Your task to perform on an android device: Go to Yahoo.com Image 0: 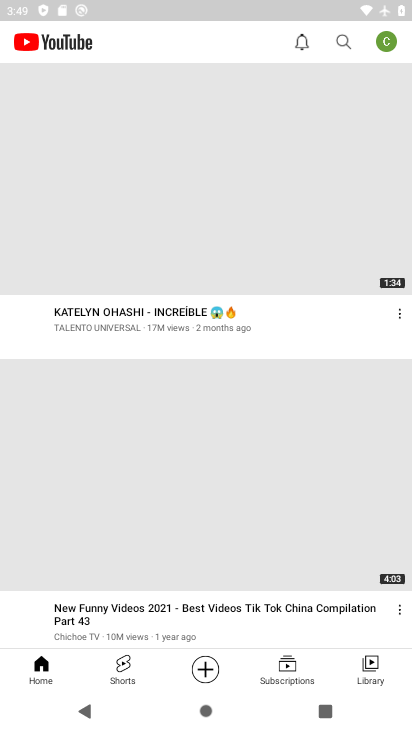
Step 0: press home button
Your task to perform on an android device: Go to Yahoo.com Image 1: 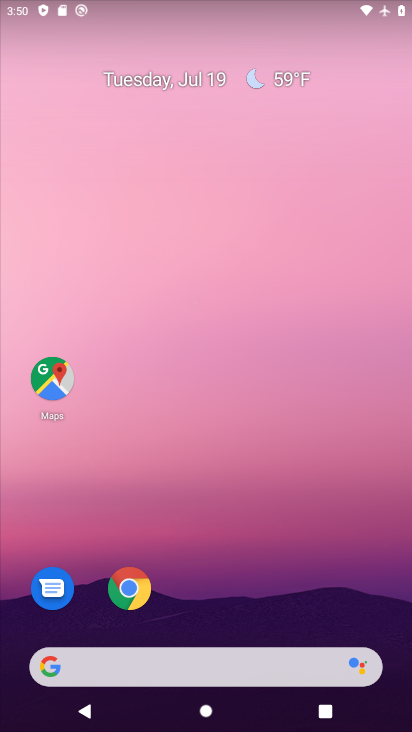
Step 1: click (44, 667)
Your task to perform on an android device: Go to Yahoo.com Image 2: 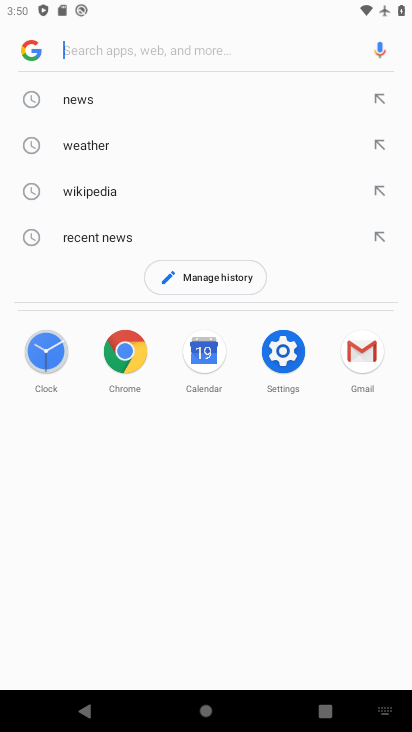
Step 2: type "Yahoo.com"
Your task to perform on an android device: Go to Yahoo.com Image 3: 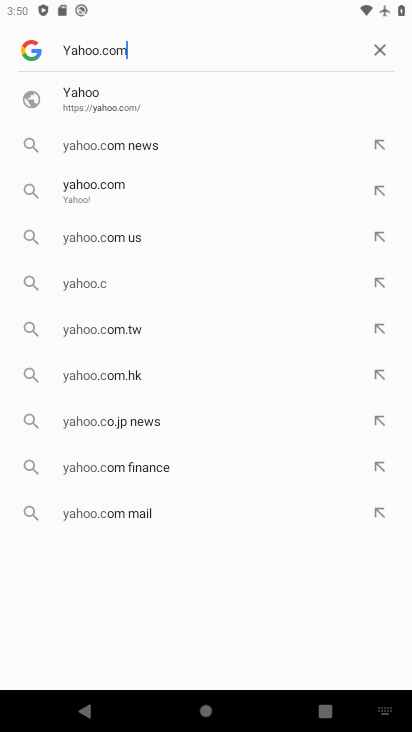
Step 3: press enter
Your task to perform on an android device: Go to Yahoo.com Image 4: 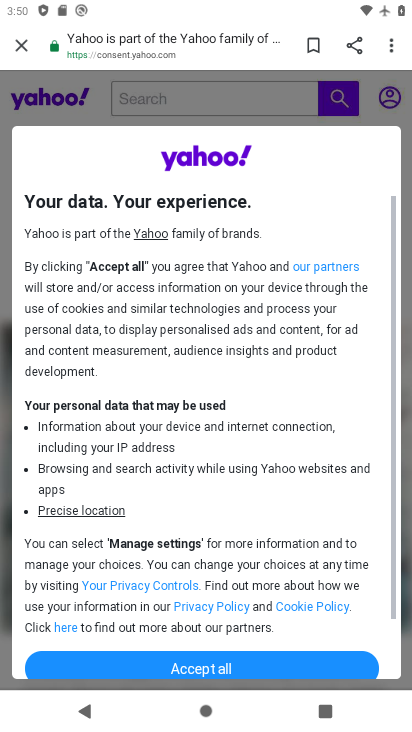
Step 4: click (148, 664)
Your task to perform on an android device: Go to Yahoo.com Image 5: 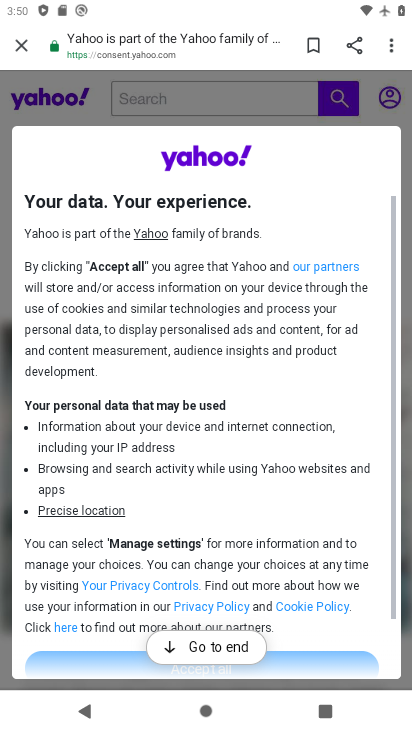
Step 5: click (204, 651)
Your task to perform on an android device: Go to Yahoo.com Image 6: 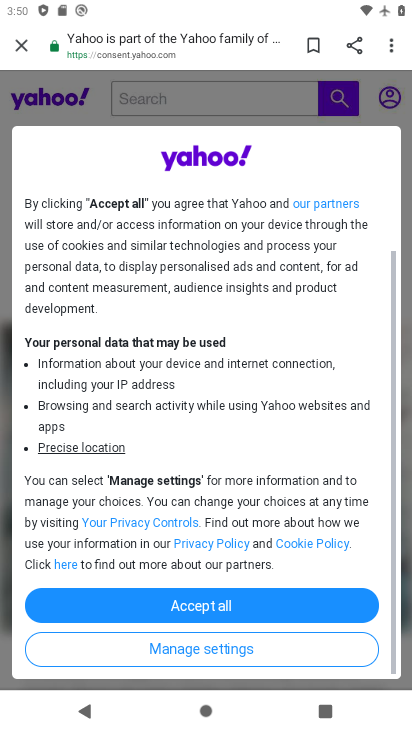
Step 6: click (147, 608)
Your task to perform on an android device: Go to Yahoo.com Image 7: 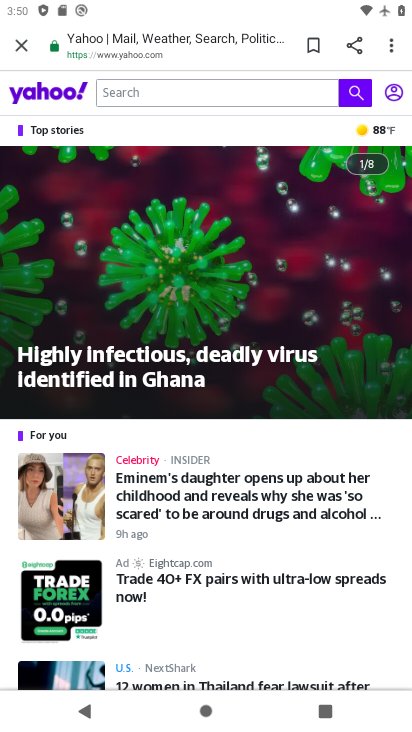
Step 7: task complete